Your task to perform on an android device: Go to eBay Image 0: 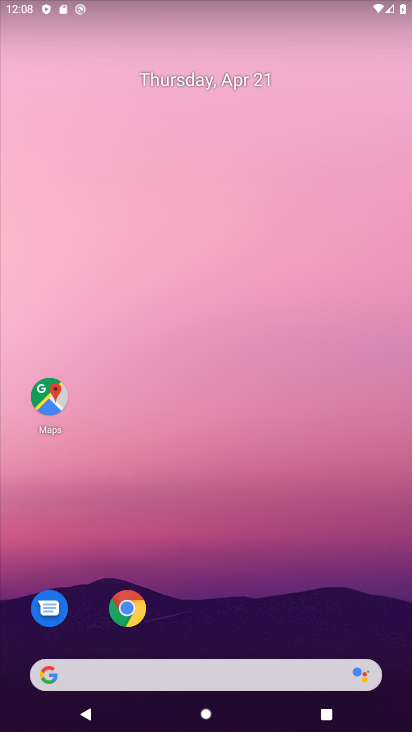
Step 0: click (132, 609)
Your task to perform on an android device: Go to eBay Image 1: 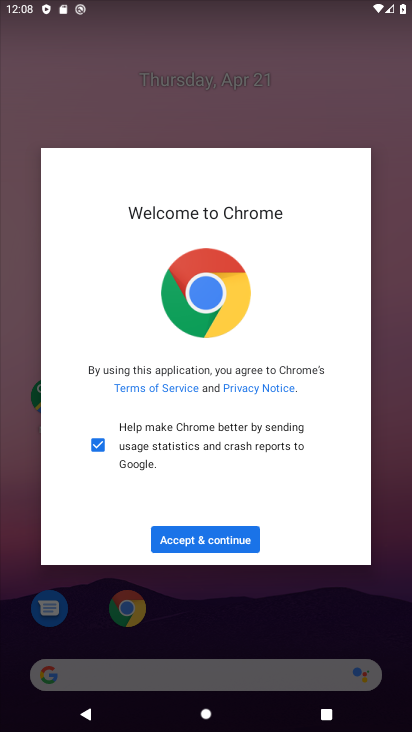
Step 1: click (220, 546)
Your task to perform on an android device: Go to eBay Image 2: 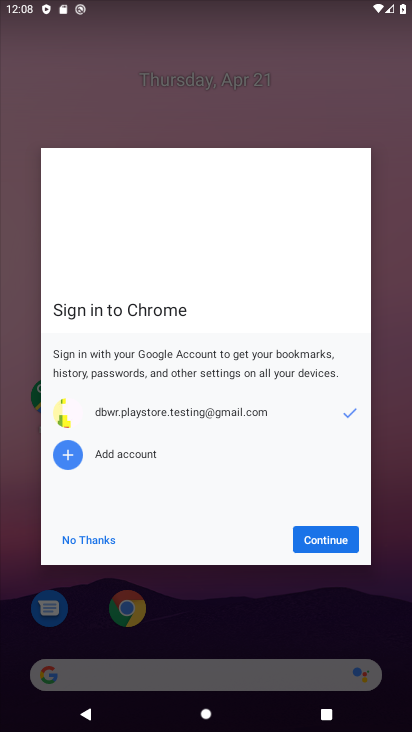
Step 2: click (335, 547)
Your task to perform on an android device: Go to eBay Image 3: 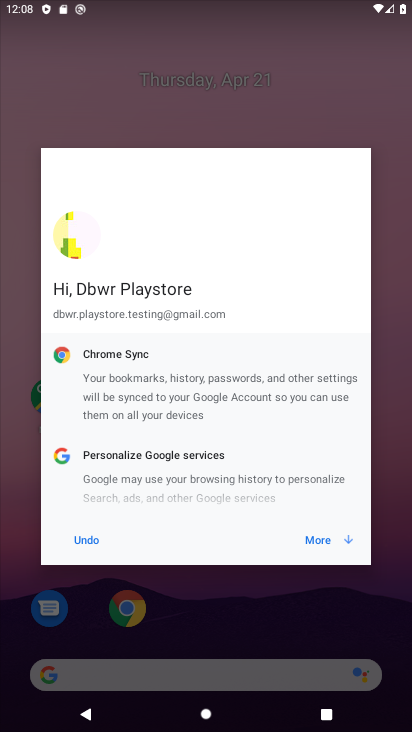
Step 3: click (334, 543)
Your task to perform on an android device: Go to eBay Image 4: 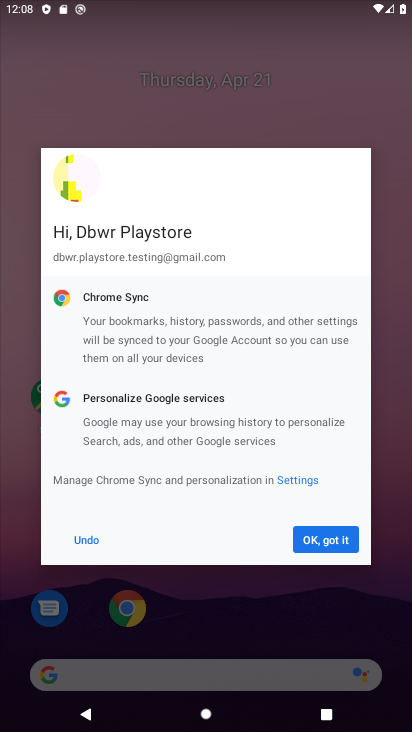
Step 4: click (327, 539)
Your task to perform on an android device: Go to eBay Image 5: 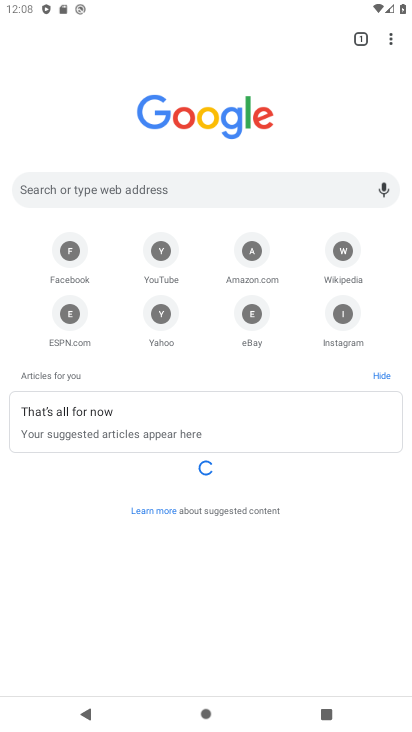
Step 5: click (181, 197)
Your task to perform on an android device: Go to eBay Image 6: 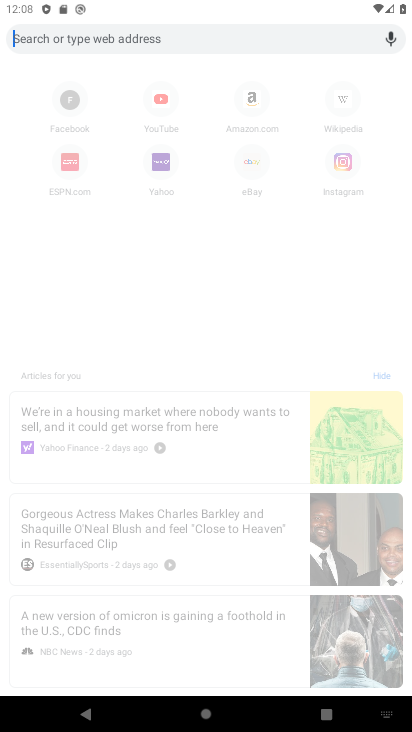
Step 6: type "ebay"
Your task to perform on an android device: Go to eBay Image 7: 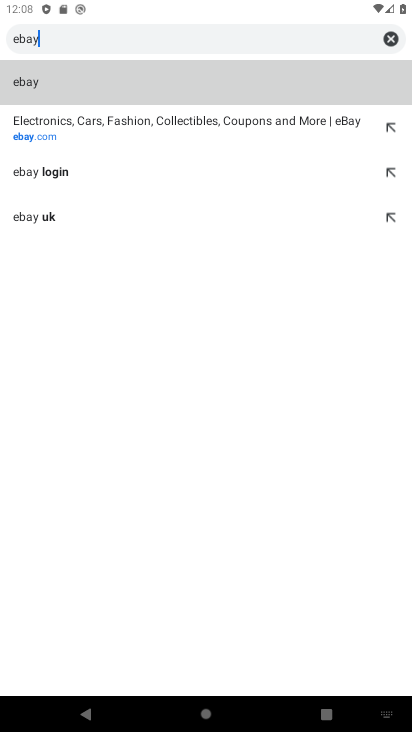
Step 7: click (26, 134)
Your task to perform on an android device: Go to eBay Image 8: 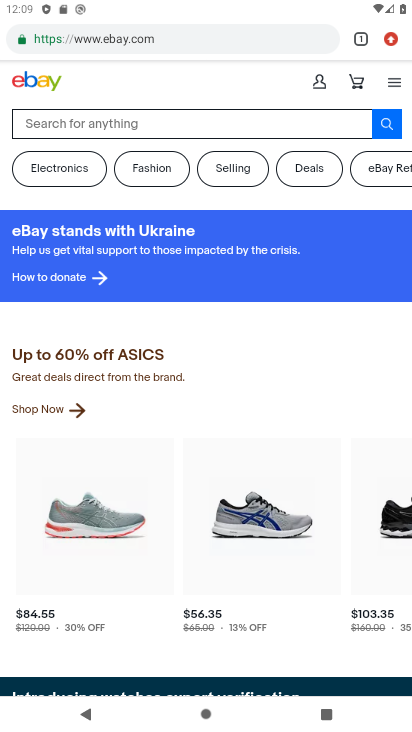
Step 8: task complete